Your task to perform on an android device: Open accessibility settings Image 0: 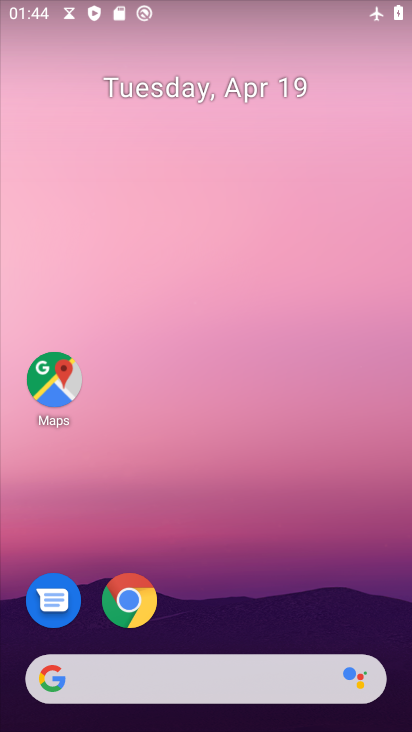
Step 0: drag from (224, 648) to (235, 9)
Your task to perform on an android device: Open accessibility settings Image 1: 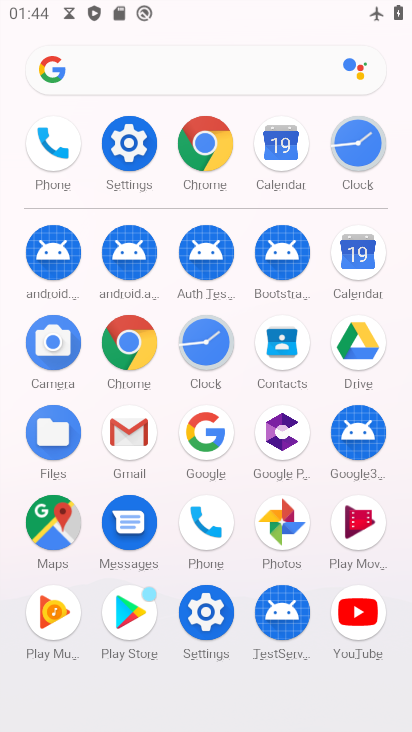
Step 1: click (203, 608)
Your task to perform on an android device: Open accessibility settings Image 2: 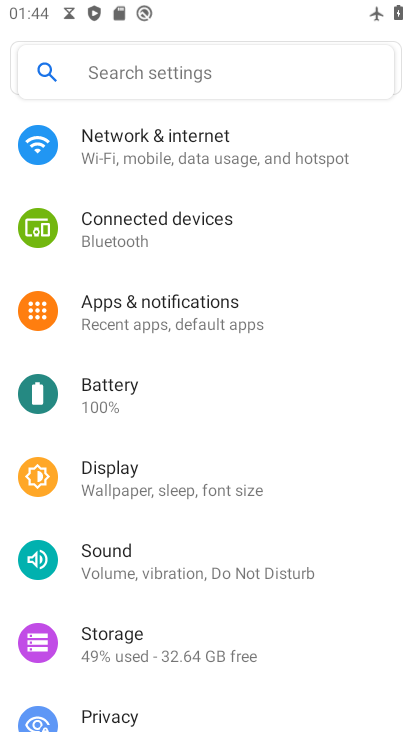
Step 2: drag from (191, 554) to (174, 111)
Your task to perform on an android device: Open accessibility settings Image 3: 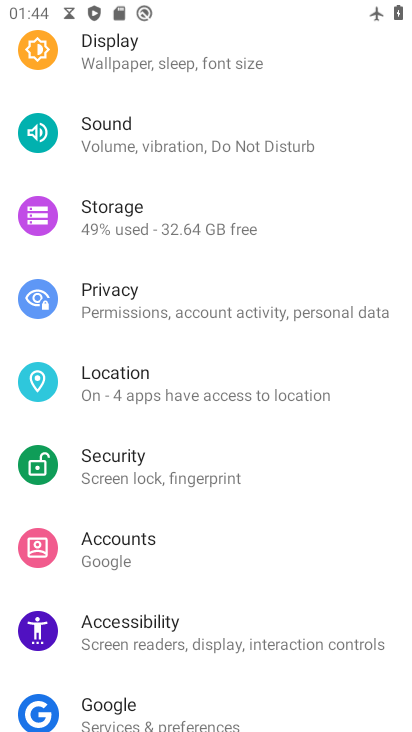
Step 3: click (120, 622)
Your task to perform on an android device: Open accessibility settings Image 4: 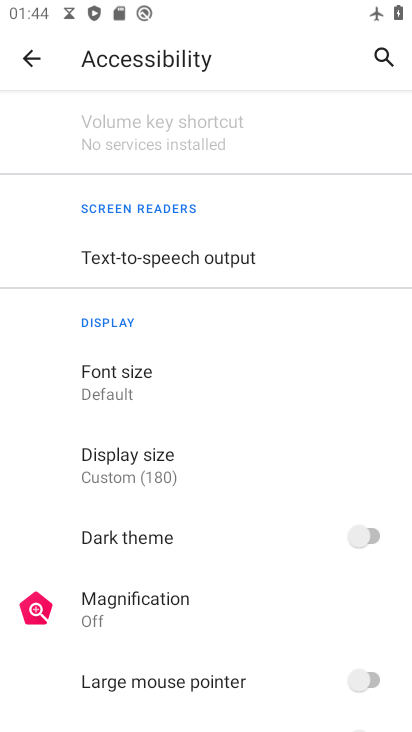
Step 4: task complete